Your task to perform on an android device: Go to ESPN.com Image 0: 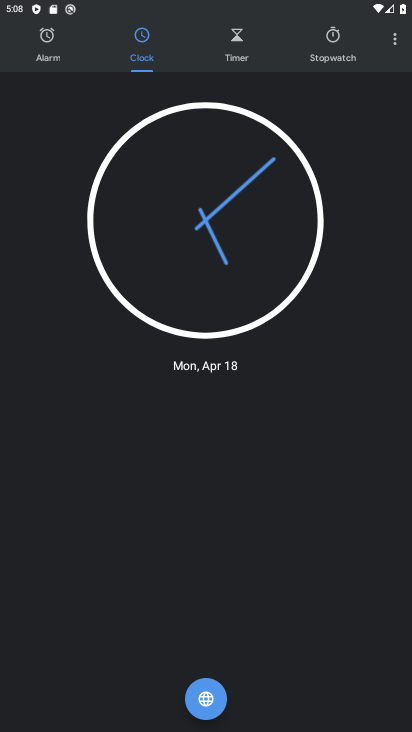
Step 0: press home button
Your task to perform on an android device: Go to ESPN.com Image 1: 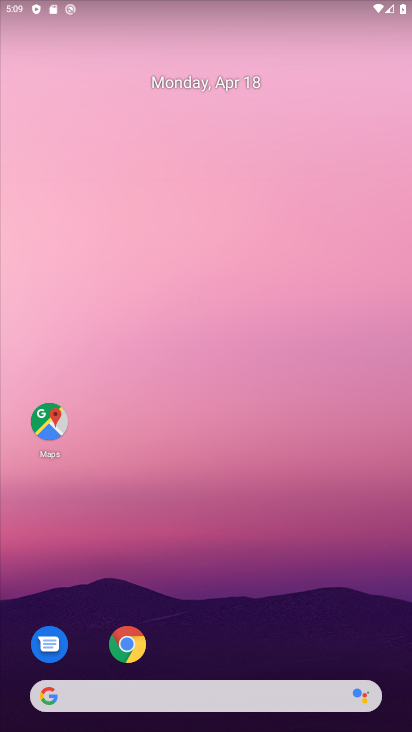
Step 1: drag from (187, 634) to (261, 65)
Your task to perform on an android device: Go to ESPN.com Image 2: 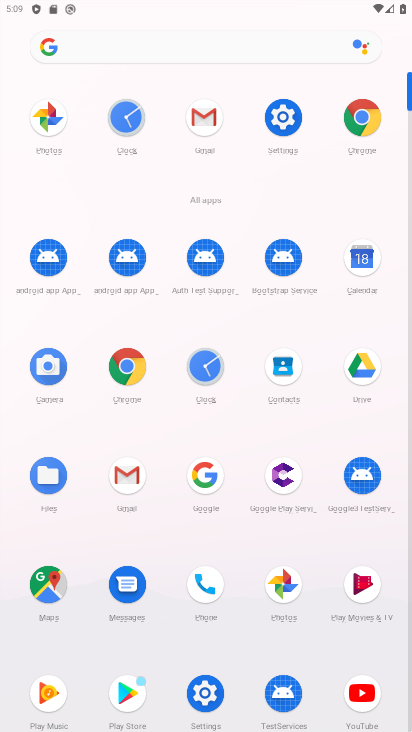
Step 2: click (366, 114)
Your task to perform on an android device: Go to ESPN.com Image 3: 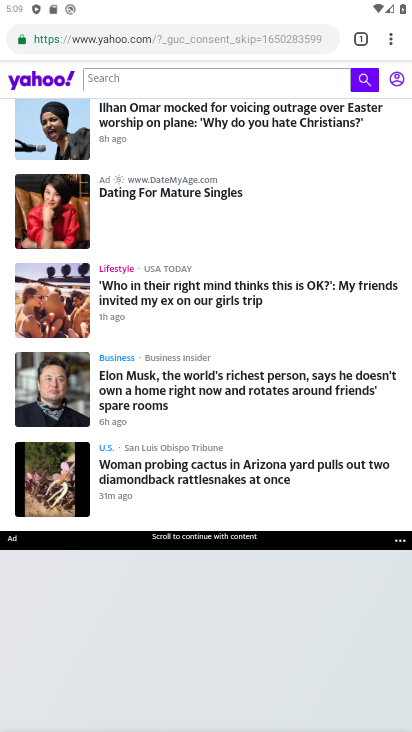
Step 3: click (360, 39)
Your task to perform on an android device: Go to ESPN.com Image 4: 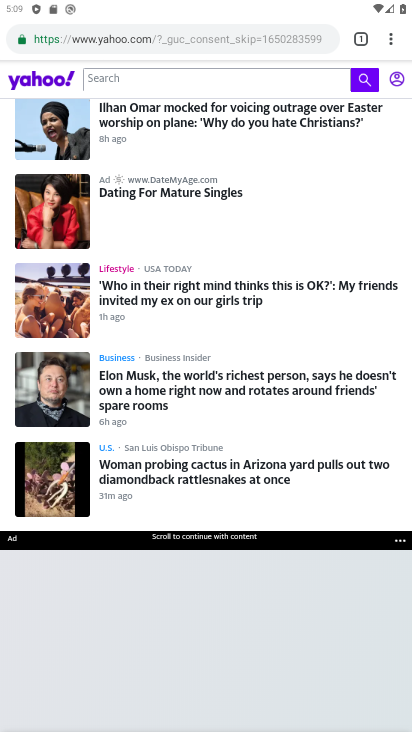
Step 4: click (359, 35)
Your task to perform on an android device: Go to ESPN.com Image 5: 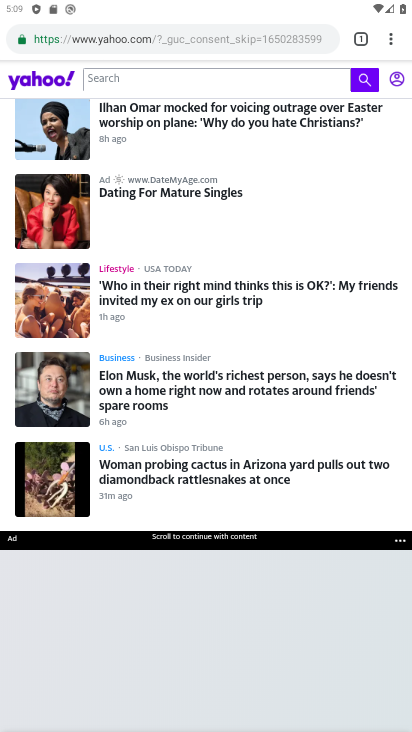
Step 5: click (363, 34)
Your task to perform on an android device: Go to ESPN.com Image 6: 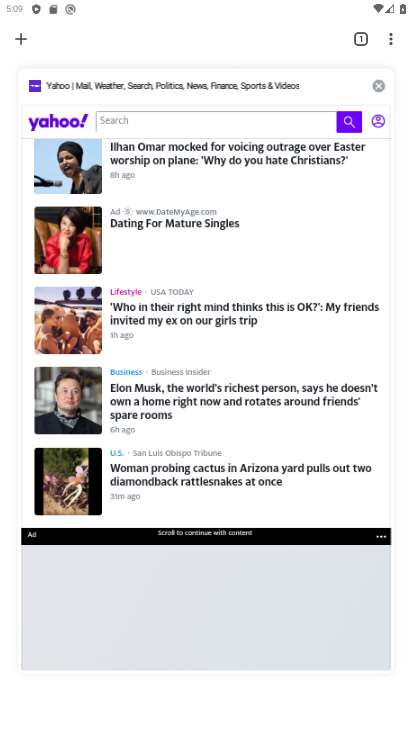
Step 6: click (23, 39)
Your task to perform on an android device: Go to ESPN.com Image 7: 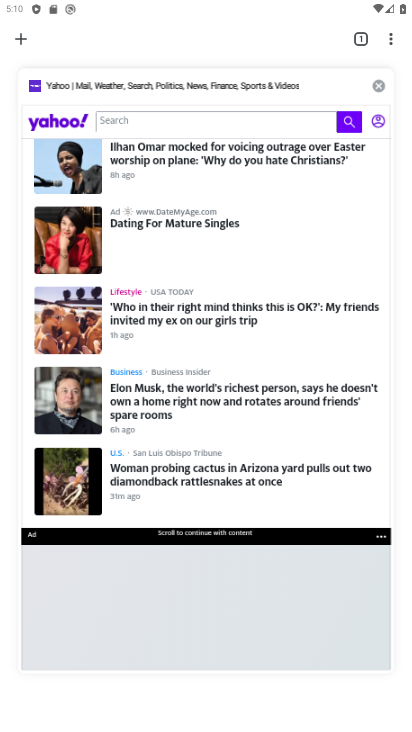
Step 7: click (21, 37)
Your task to perform on an android device: Go to ESPN.com Image 8: 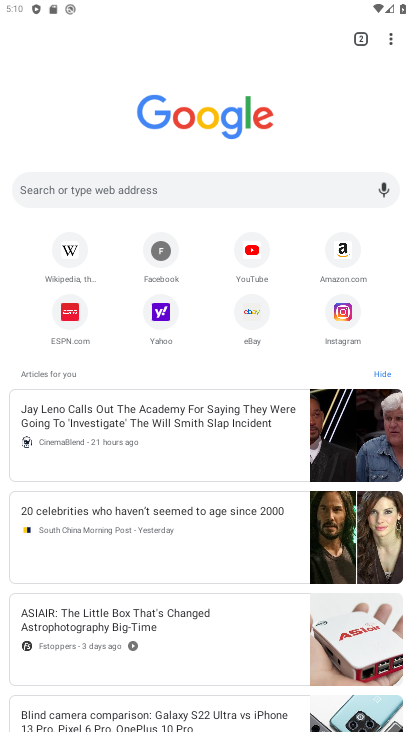
Step 8: click (89, 184)
Your task to perform on an android device: Go to ESPN.com Image 9: 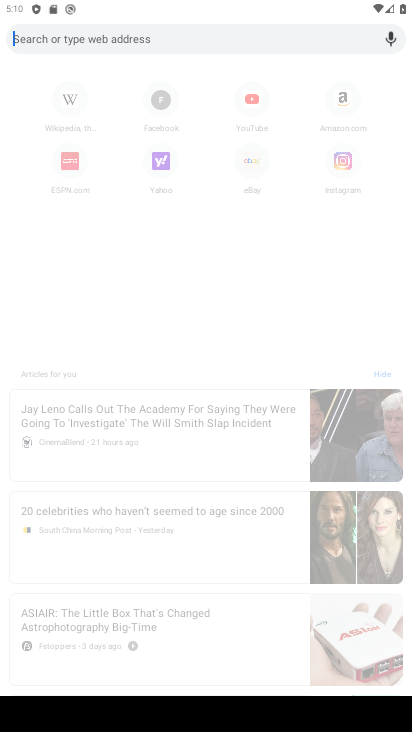
Step 9: click (69, 171)
Your task to perform on an android device: Go to ESPN.com Image 10: 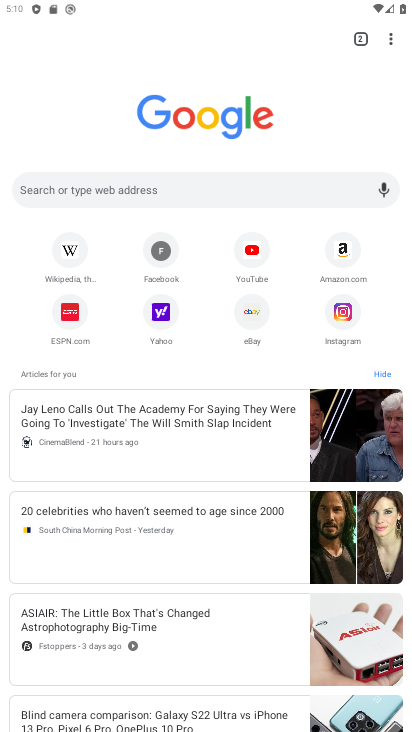
Step 10: click (68, 304)
Your task to perform on an android device: Go to ESPN.com Image 11: 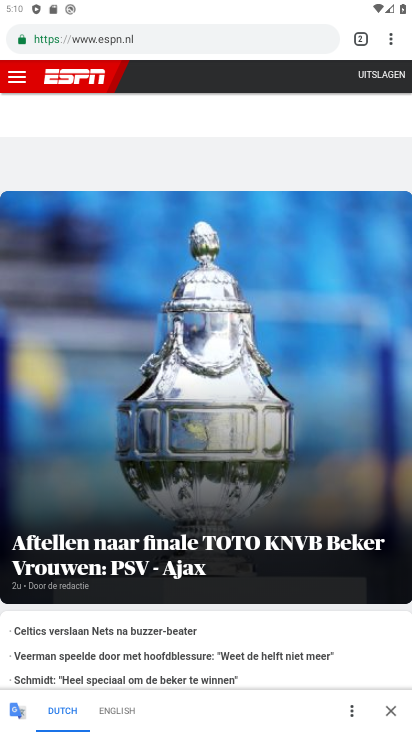
Step 11: drag from (218, 652) to (265, 323)
Your task to perform on an android device: Go to ESPN.com Image 12: 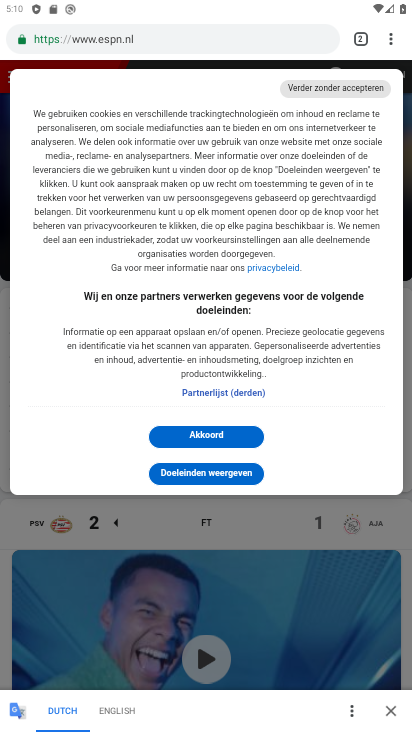
Step 12: click (210, 429)
Your task to perform on an android device: Go to ESPN.com Image 13: 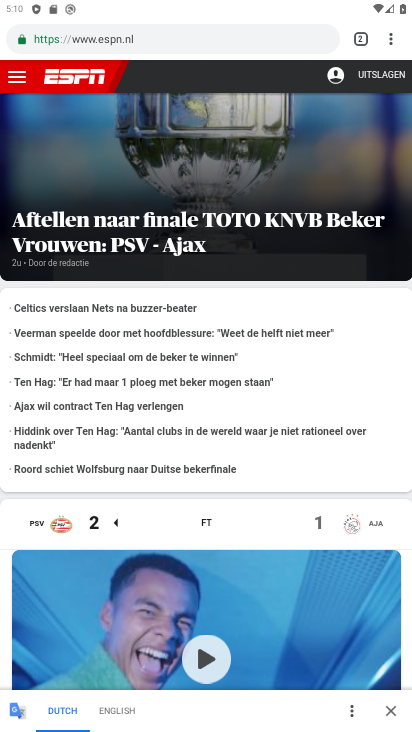
Step 13: task complete